Your task to perform on an android device: Open Youtube and go to "Your channel" Image 0: 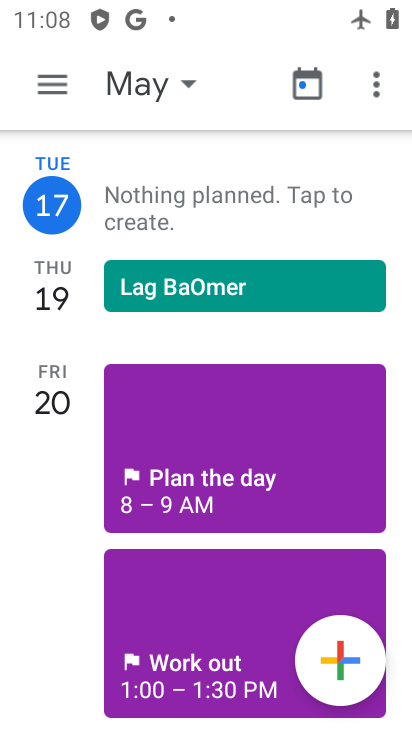
Step 0: press home button
Your task to perform on an android device: Open Youtube and go to "Your channel" Image 1: 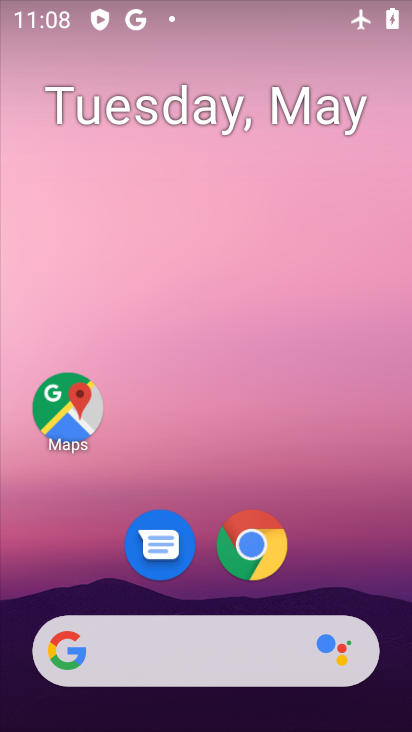
Step 1: drag from (345, 550) to (352, 212)
Your task to perform on an android device: Open Youtube and go to "Your channel" Image 2: 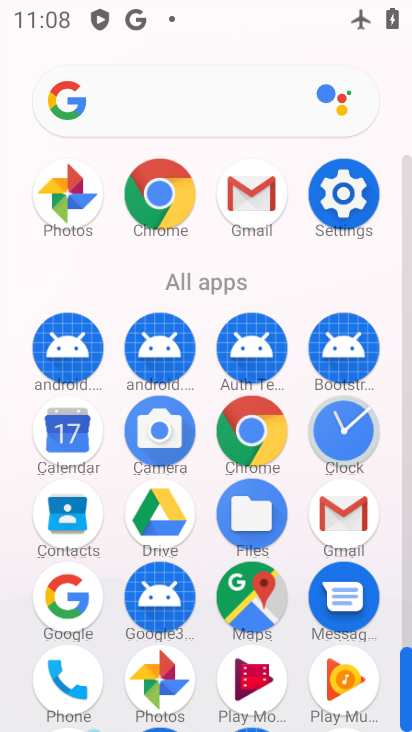
Step 2: drag from (284, 632) to (300, 292)
Your task to perform on an android device: Open Youtube and go to "Your channel" Image 3: 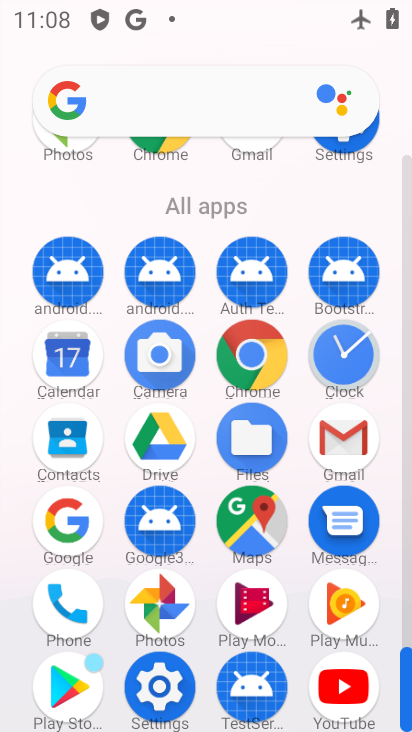
Step 3: click (329, 705)
Your task to perform on an android device: Open Youtube and go to "Your channel" Image 4: 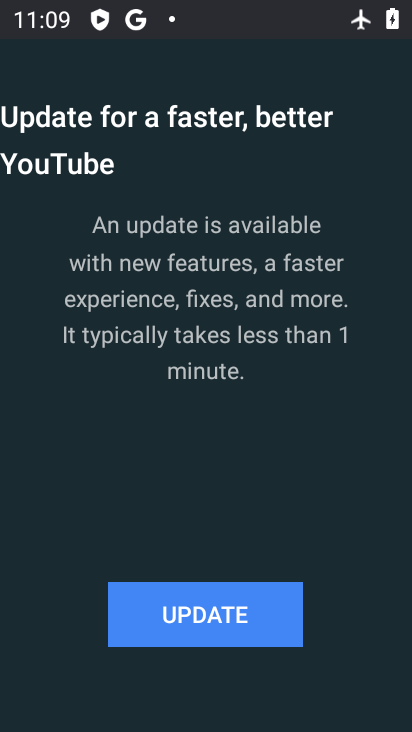
Step 4: click (243, 618)
Your task to perform on an android device: Open Youtube and go to "Your channel" Image 5: 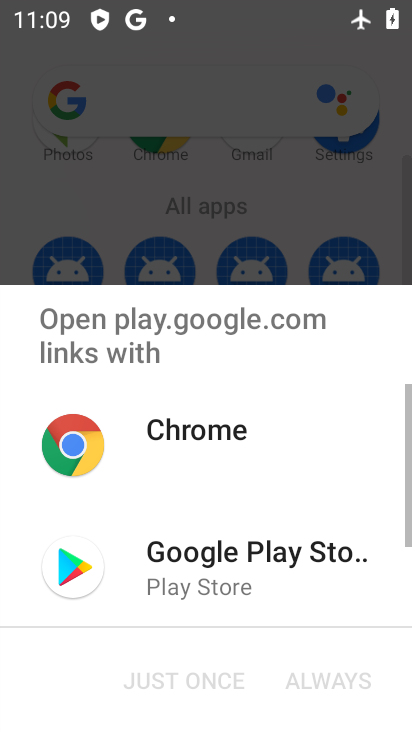
Step 5: click (252, 577)
Your task to perform on an android device: Open Youtube and go to "Your channel" Image 6: 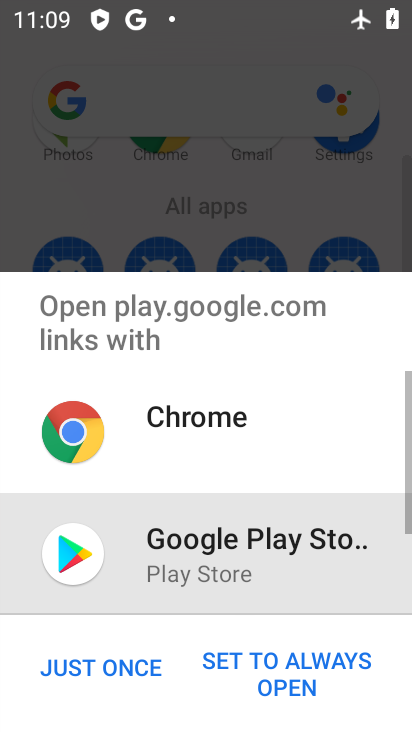
Step 6: click (125, 676)
Your task to perform on an android device: Open Youtube and go to "Your channel" Image 7: 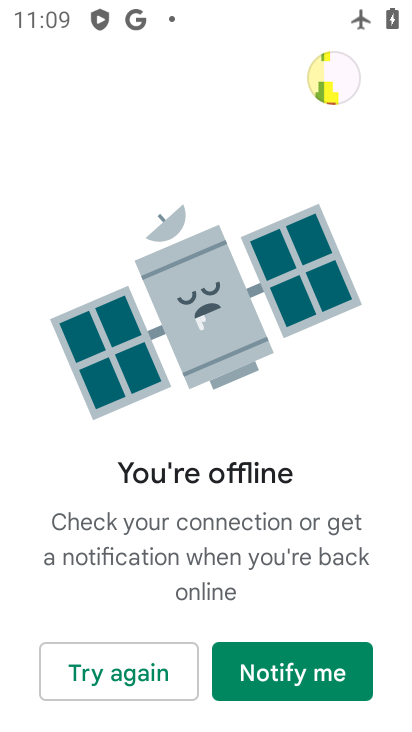
Step 7: task complete